Your task to perform on an android device: toggle pop-ups in chrome Image 0: 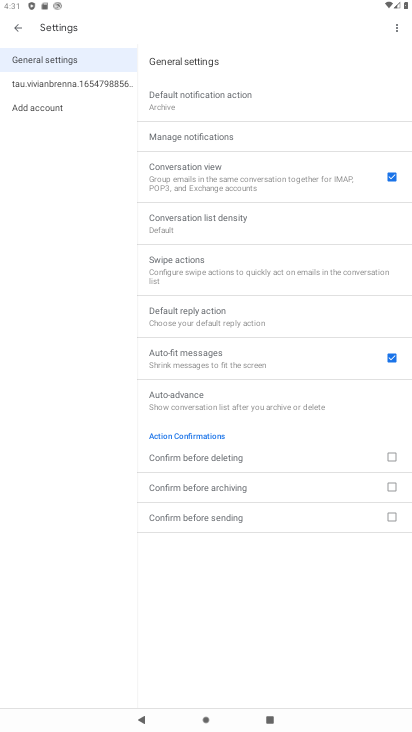
Step 0: press home button
Your task to perform on an android device: toggle pop-ups in chrome Image 1: 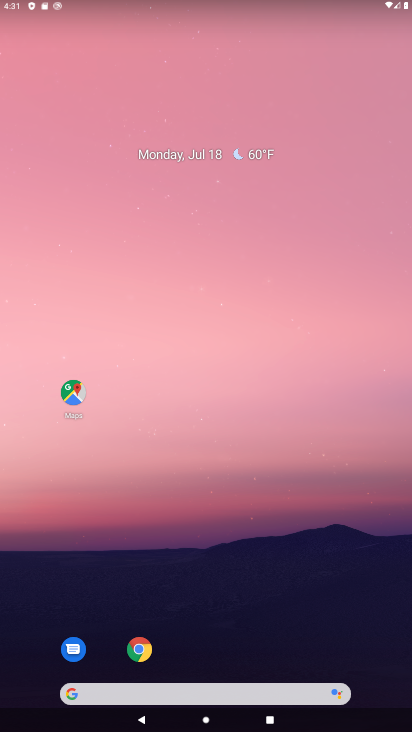
Step 1: click (136, 649)
Your task to perform on an android device: toggle pop-ups in chrome Image 2: 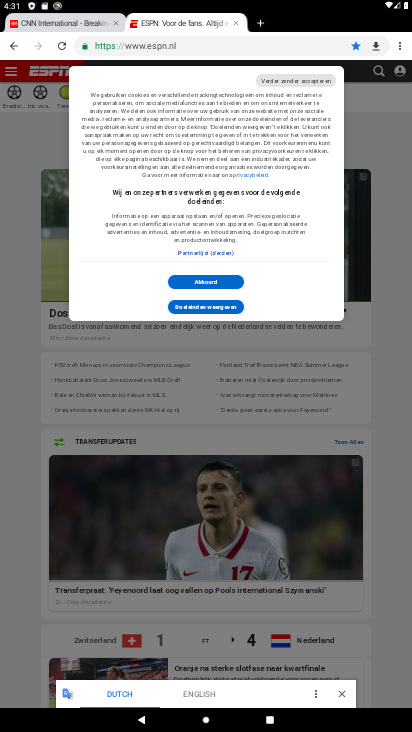
Step 2: click (395, 47)
Your task to perform on an android device: toggle pop-ups in chrome Image 3: 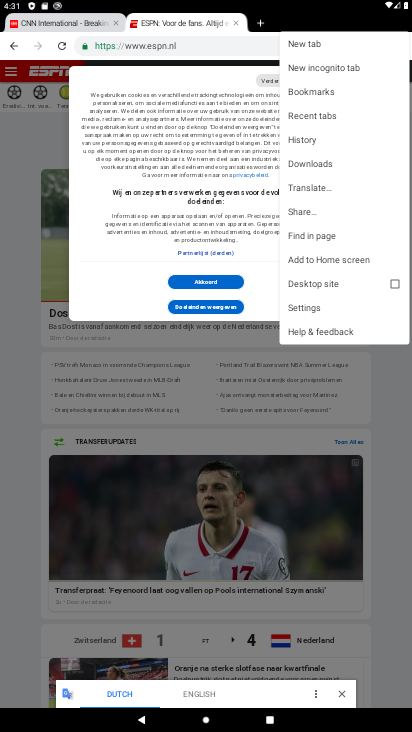
Step 3: click (302, 310)
Your task to perform on an android device: toggle pop-ups in chrome Image 4: 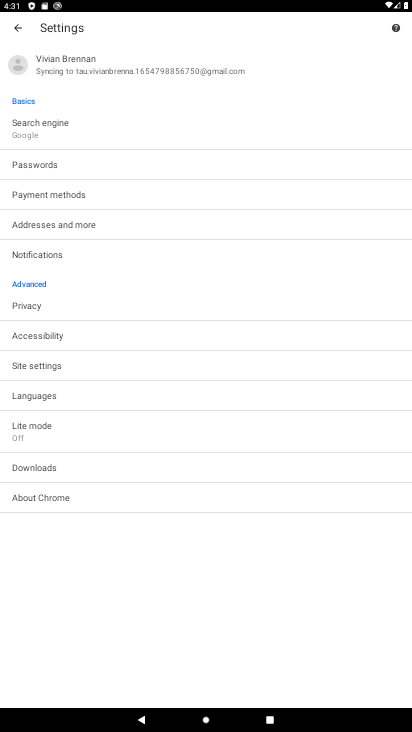
Step 4: click (29, 365)
Your task to perform on an android device: toggle pop-ups in chrome Image 5: 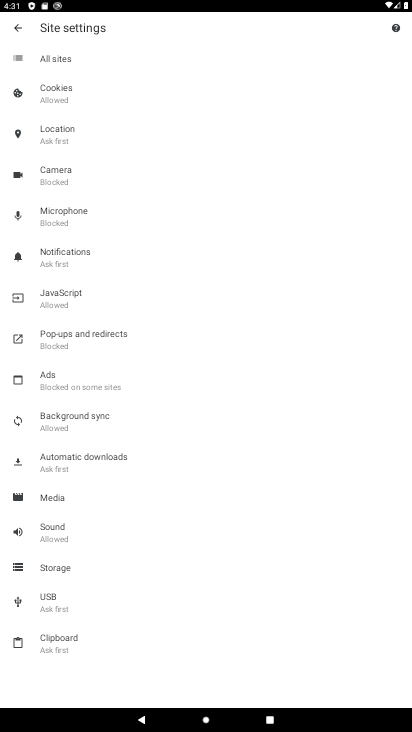
Step 5: click (106, 328)
Your task to perform on an android device: toggle pop-ups in chrome Image 6: 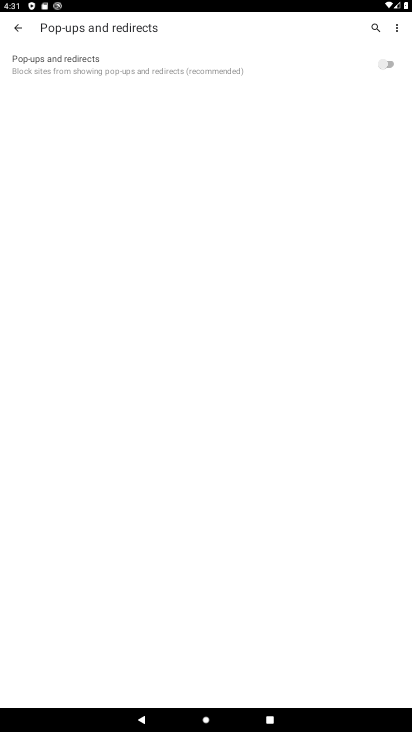
Step 6: click (360, 60)
Your task to perform on an android device: toggle pop-ups in chrome Image 7: 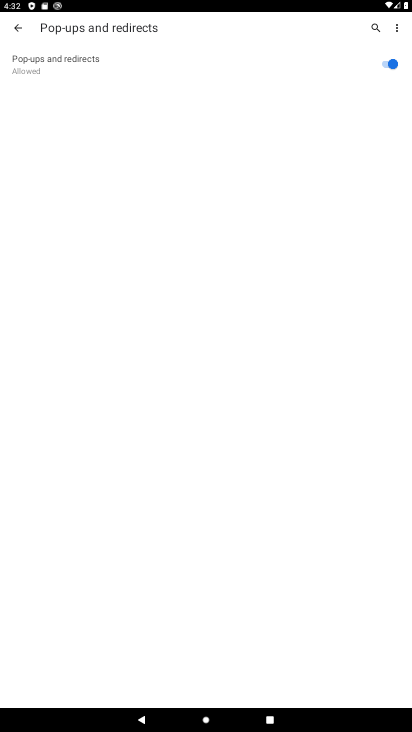
Step 7: task complete